Your task to perform on an android device: toggle pop-ups in chrome Image 0: 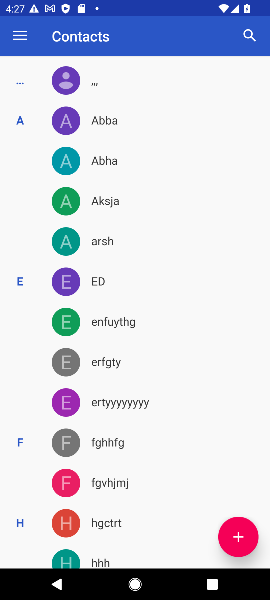
Step 0: press home button
Your task to perform on an android device: toggle pop-ups in chrome Image 1: 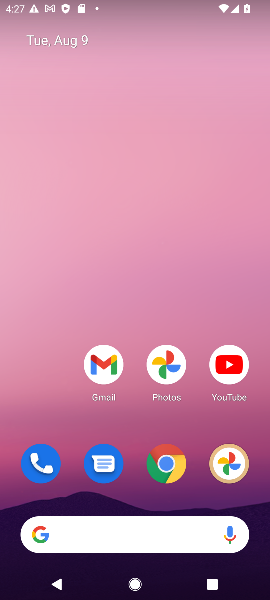
Step 1: click (155, 461)
Your task to perform on an android device: toggle pop-ups in chrome Image 2: 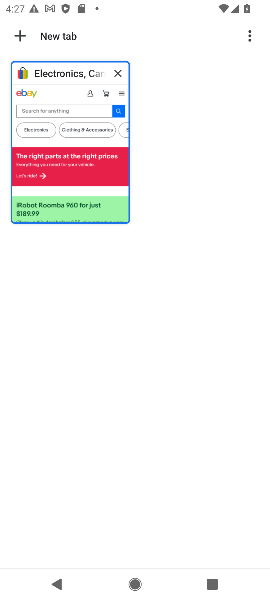
Step 2: click (59, 93)
Your task to perform on an android device: toggle pop-ups in chrome Image 3: 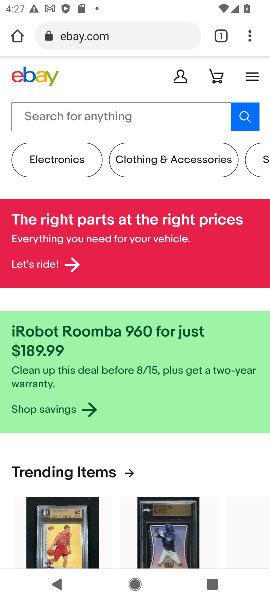
Step 3: click (251, 31)
Your task to perform on an android device: toggle pop-ups in chrome Image 4: 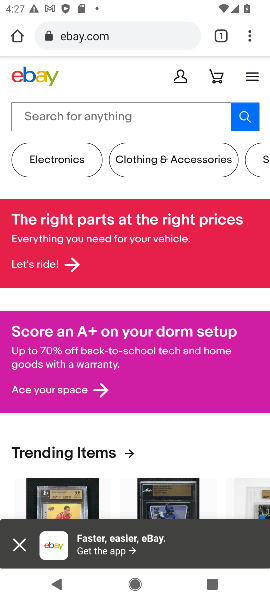
Step 4: click (248, 43)
Your task to perform on an android device: toggle pop-ups in chrome Image 5: 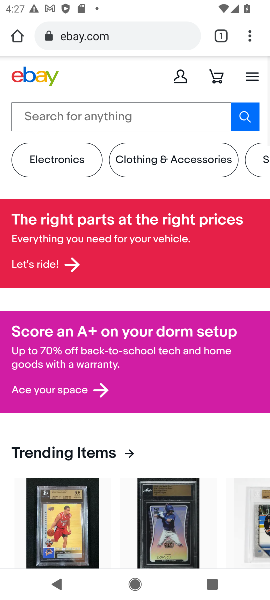
Step 5: click (243, 34)
Your task to perform on an android device: toggle pop-ups in chrome Image 6: 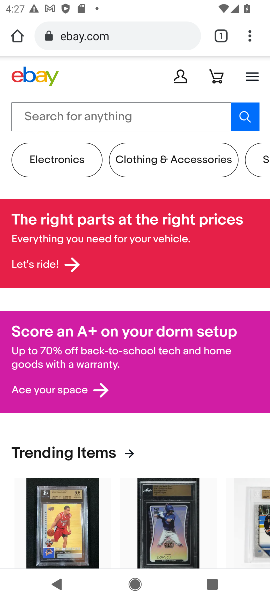
Step 6: click (249, 38)
Your task to perform on an android device: toggle pop-ups in chrome Image 7: 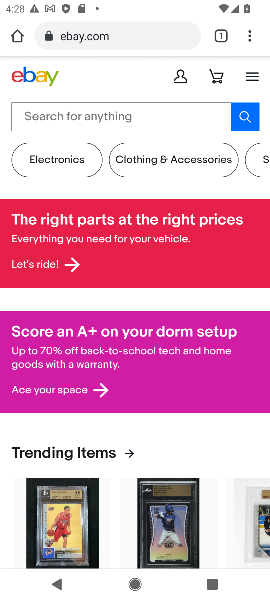
Step 7: click (250, 31)
Your task to perform on an android device: toggle pop-ups in chrome Image 8: 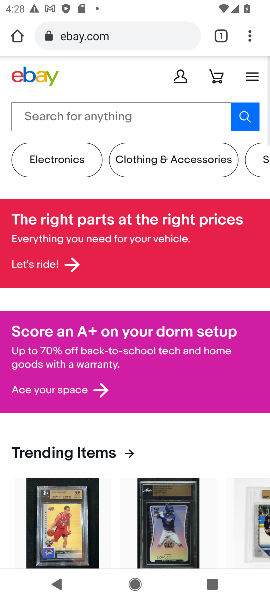
Step 8: click (252, 36)
Your task to perform on an android device: toggle pop-ups in chrome Image 9: 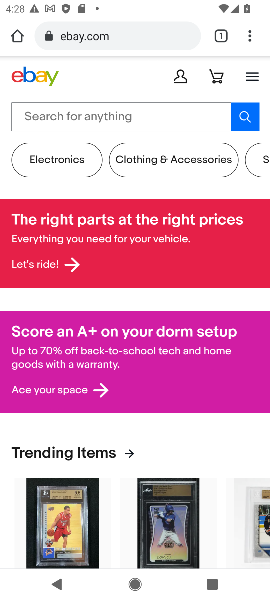
Step 9: click (249, 38)
Your task to perform on an android device: toggle pop-ups in chrome Image 10: 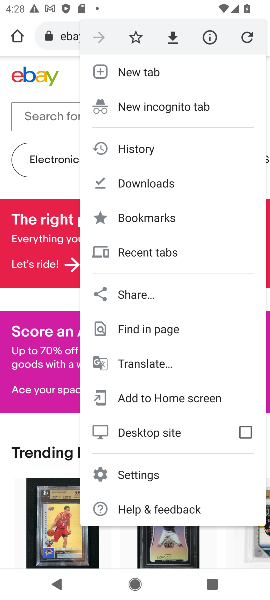
Step 10: click (142, 472)
Your task to perform on an android device: toggle pop-ups in chrome Image 11: 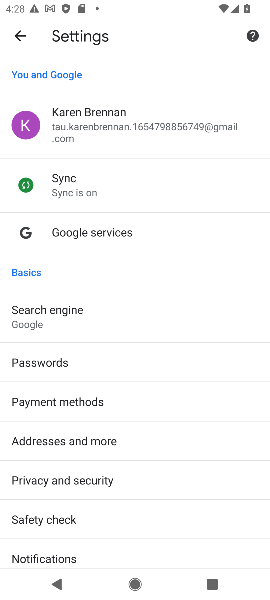
Step 11: drag from (44, 556) to (67, 215)
Your task to perform on an android device: toggle pop-ups in chrome Image 12: 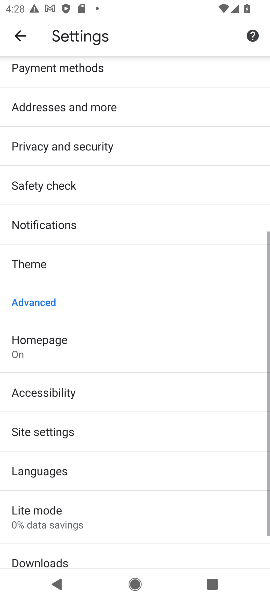
Step 12: click (44, 426)
Your task to perform on an android device: toggle pop-ups in chrome Image 13: 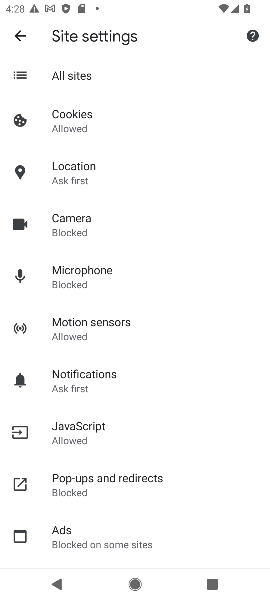
Step 13: click (95, 485)
Your task to perform on an android device: toggle pop-ups in chrome Image 14: 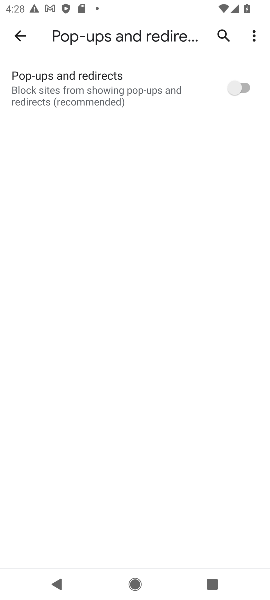
Step 14: click (235, 88)
Your task to perform on an android device: toggle pop-ups in chrome Image 15: 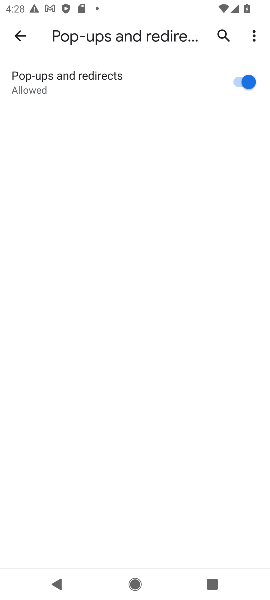
Step 15: task complete